Your task to perform on an android device: Show the shopping cart on amazon.com. Search for "razer deathadder" on amazon.com, select the first entry, and add it to the cart. Image 0: 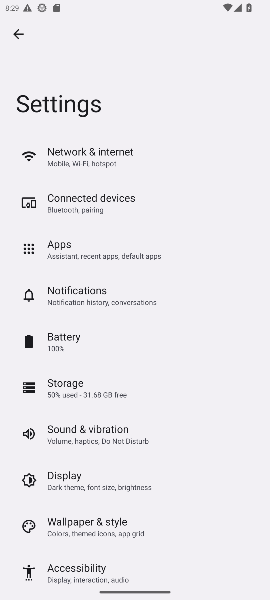
Step 0: press home button
Your task to perform on an android device: Show the shopping cart on amazon.com. Search for "razer deathadder" on amazon.com, select the first entry, and add it to the cart. Image 1: 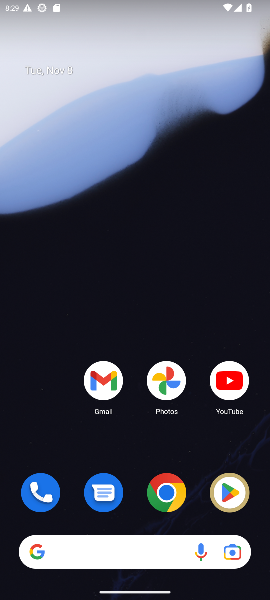
Step 1: click (170, 493)
Your task to perform on an android device: Show the shopping cart on amazon.com. Search for "razer deathadder" on amazon.com, select the first entry, and add it to the cart. Image 2: 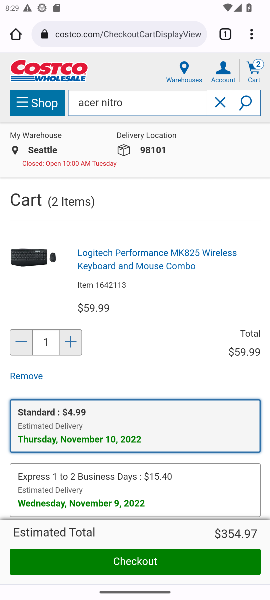
Step 2: click (19, 37)
Your task to perform on an android device: Show the shopping cart on amazon.com. Search for "razer deathadder" on amazon.com, select the first entry, and add it to the cart. Image 3: 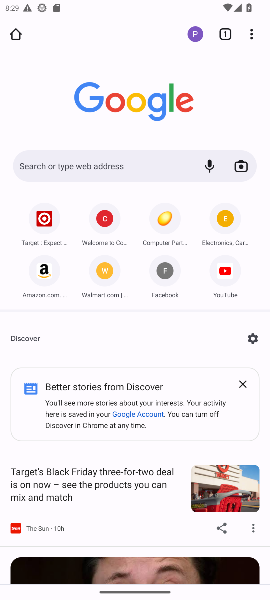
Step 3: click (35, 269)
Your task to perform on an android device: Show the shopping cart on amazon.com. Search for "razer deathadder" on amazon.com, select the first entry, and add it to the cart. Image 4: 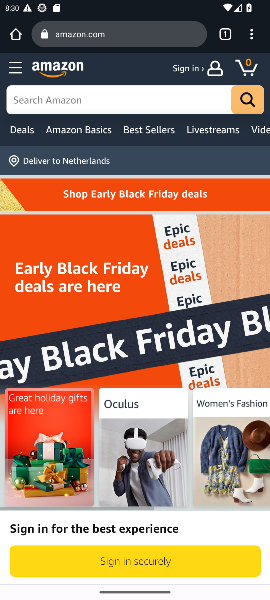
Step 4: click (140, 88)
Your task to perform on an android device: Show the shopping cart on amazon.com. Search for "razer deathadder" on amazon.com, select the first entry, and add it to the cart. Image 5: 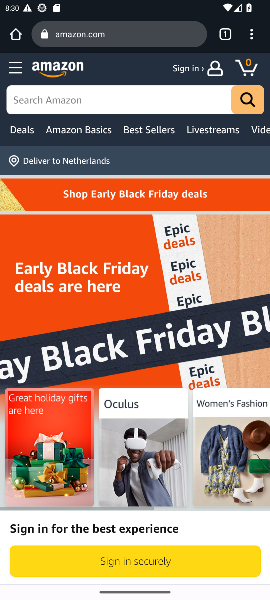
Step 5: click (193, 96)
Your task to perform on an android device: Show the shopping cart on amazon.com. Search for "razer deathadder" on amazon.com, select the first entry, and add it to the cart. Image 6: 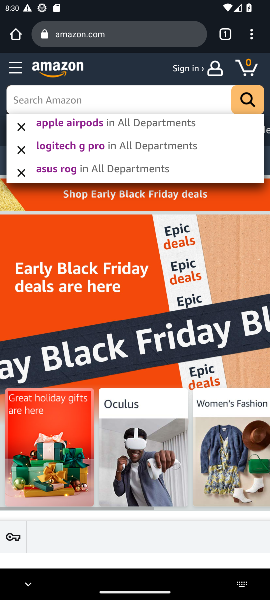
Step 6: type "razer deathadder"
Your task to perform on an android device: Show the shopping cart on amazon.com. Search for "razer deathadder" on amazon.com, select the first entry, and add it to the cart. Image 7: 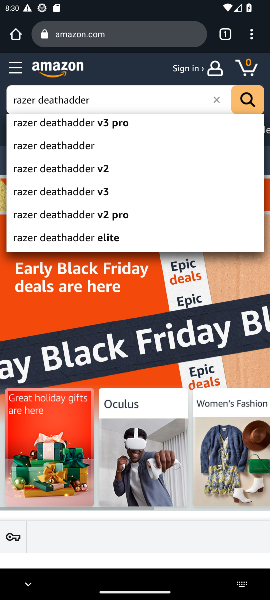
Step 7: click (85, 143)
Your task to perform on an android device: Show the shopping cart on amazon.com. Search for "razer deathadder" on amazon.com, select the first entry, and add it to the cart. Image 8: 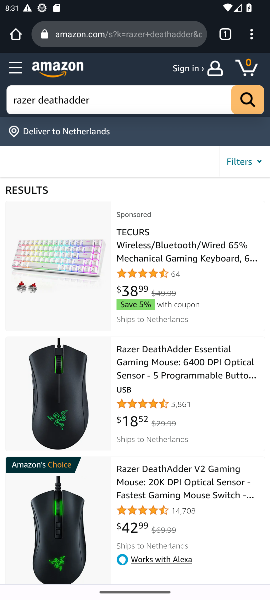
Step 8: click (192, 358)
Your task to perform on an android device: Show the shopping cart on amazon.com. Search for "razer deathadder" on amazon.com, select the first entry, and add it to the cart. Image 9: 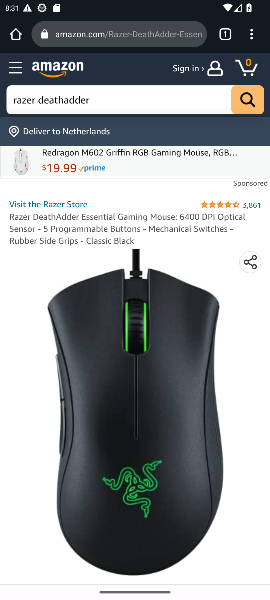
Step 9: drag from (157, 438) to (164, 3)
Your task to perform on an android device: Show the shopping cart on amazon.com. Search for "razer deathadder" on amazon.com, select the first entry, and add it to the cart. Image 10: 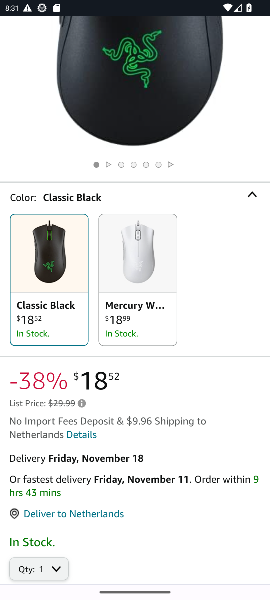
Step 10: drag from (200, 425) to (234, 89)
Your task to perform on an android device: Show the shopping cart on amazon.com. Search for "razer deathadder" on amazon.com, select the first entry, and add it to the cart. Image 11: 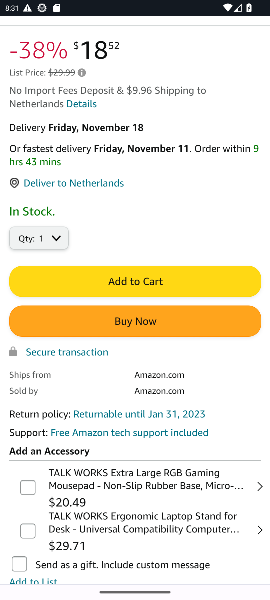
Step 11: click (182, 275)
Your task to perform on an android device: Show the shopping cart on amazon.com. Search for "razer deathadder" on amazon.com, select the first entry, and add it to the cart. Image 12: 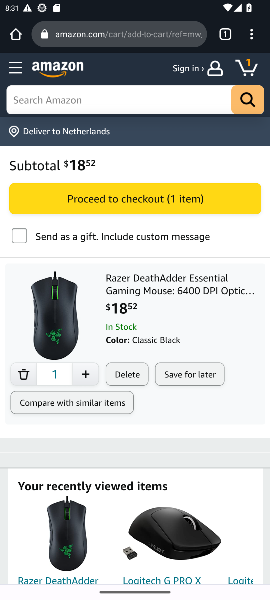
Step 12: task complete